Your task to perform on an android device: Open Chrome and go to settings Image 0: 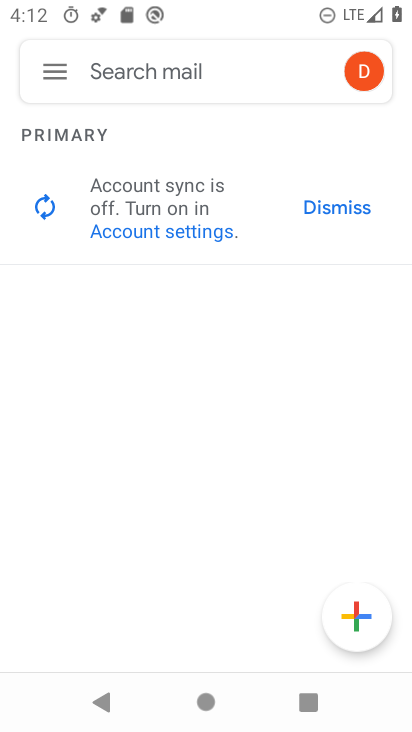
Step 0: press home button
Your task to perform on an android device: Open Chrome and go to settings Image 1: 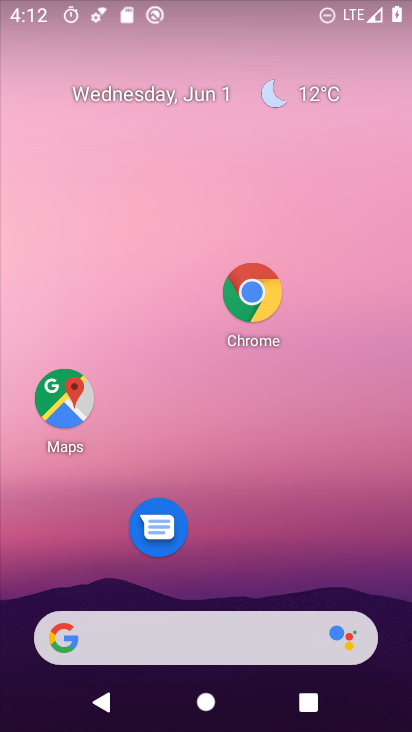
Step 1: drag from (261, 659) to (304, 50)
Your task to perform on an android device: Open Chrome and go to settings Image 2: 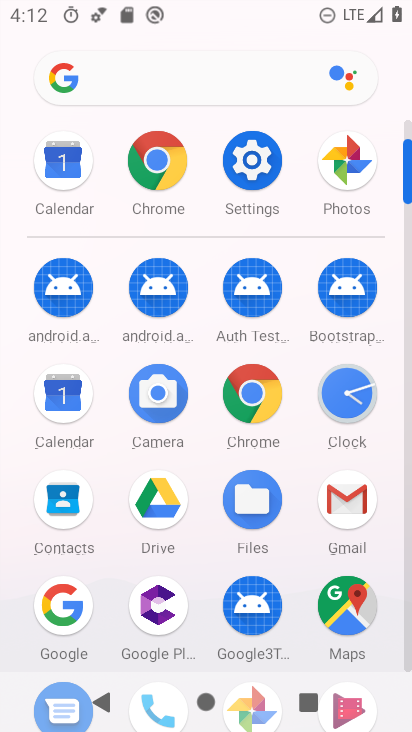
Step 2: click (258, 417)
Your task to perform on an android device: Open Chrome and go to settings Image 3: 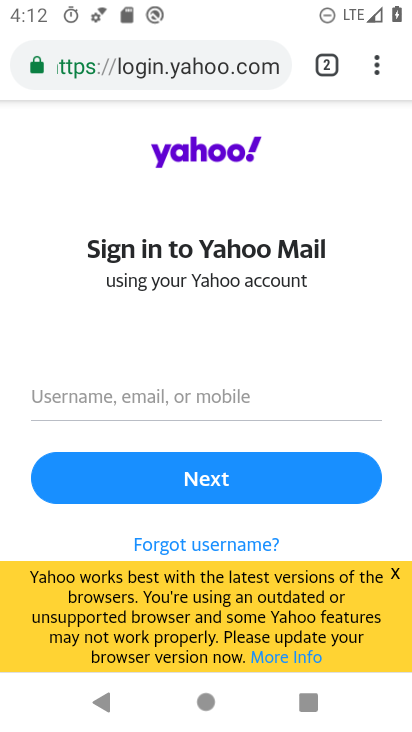
Step 3: click (374, 73)
Your task to perform on an android device: Open Chrome and go to settings Image 4: 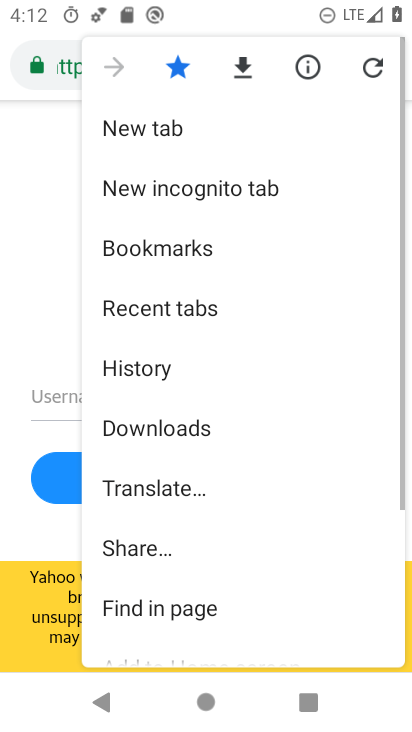
Step 4: drag from (177, 575) to (270, 102)
Your task to perform on an android device: Open Chrome and go to settings Image 5: 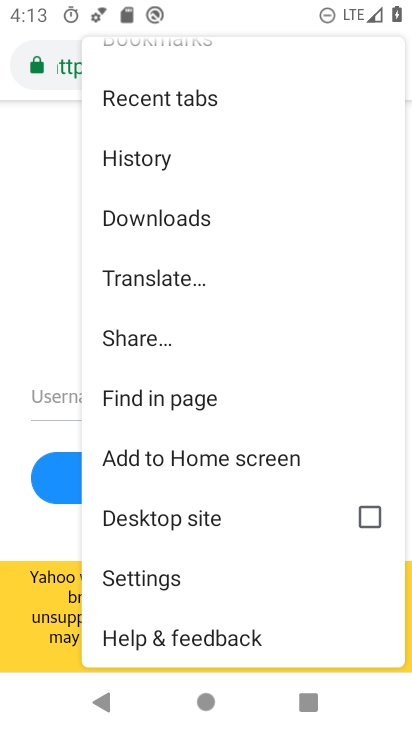
Step 5: click (174, 575)
Your task to perform on an android device: Open Chrome and go to settings Image 6: 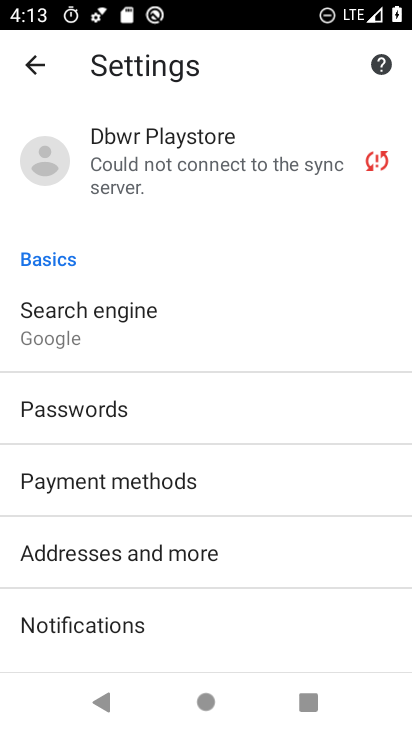
Step 6: task complete